Your task to perform on an android device: Add dell xps to the cart on walmart.com Image 0: 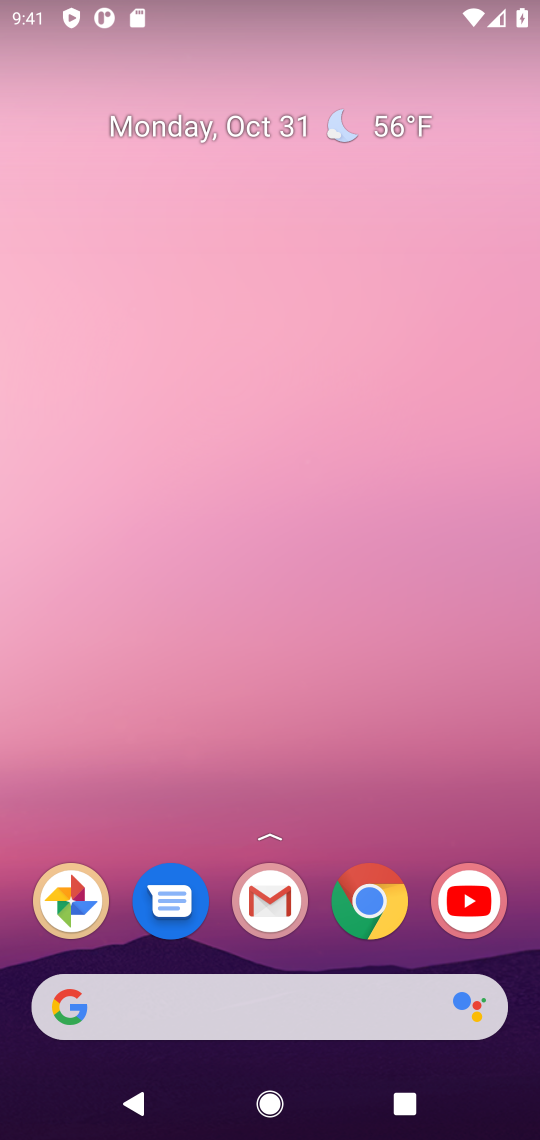
Step 0: drag from (204, 1035) to (215, 524)
Your task to perform on an android device: Add dell xps to the cart on walmart.com Image 1: 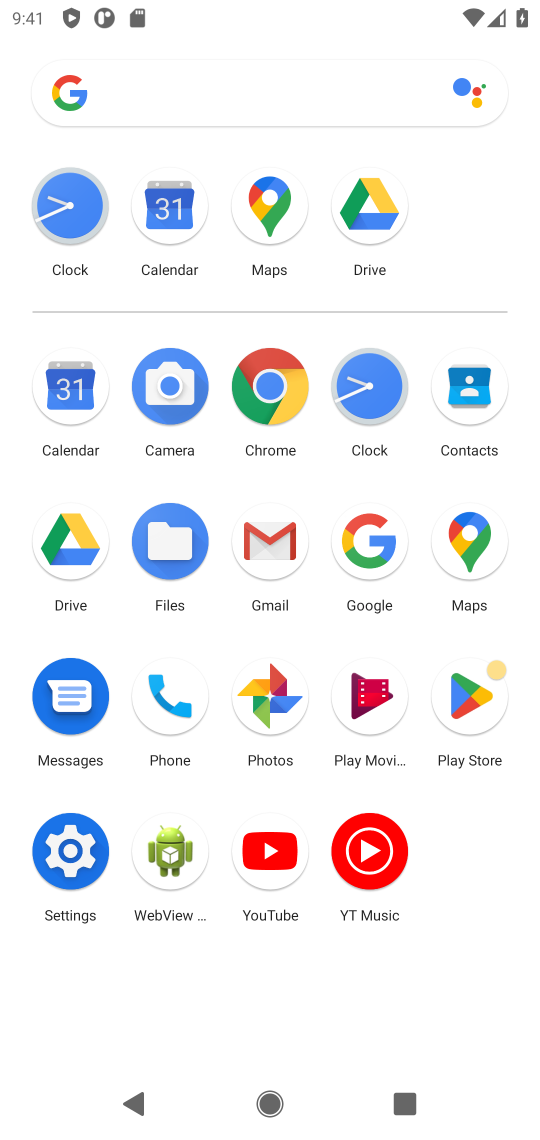
Step 1: click (362, 543)
Your task to perform on an android device: Add dell xps to the cart on walmart.com Image 2: 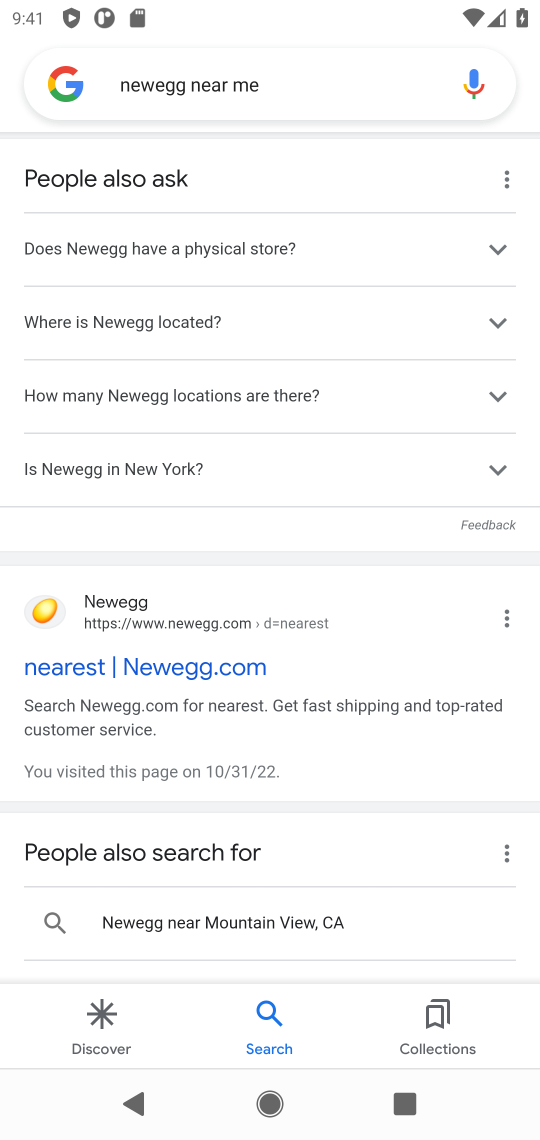
Step 2: click (260, 78)
Your task to perform on an android device: Add dell xps to the cart on walmart.com Image 3: 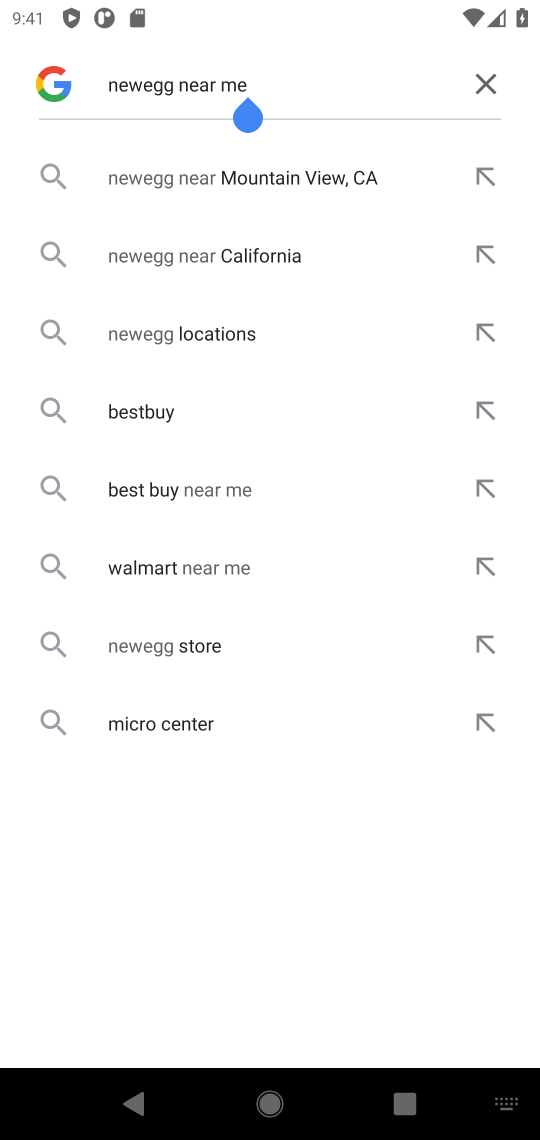
Step 3: click (469, 71)
Your task to perform on an android device: Add dell xps to the cart on walmart.com Image 4: 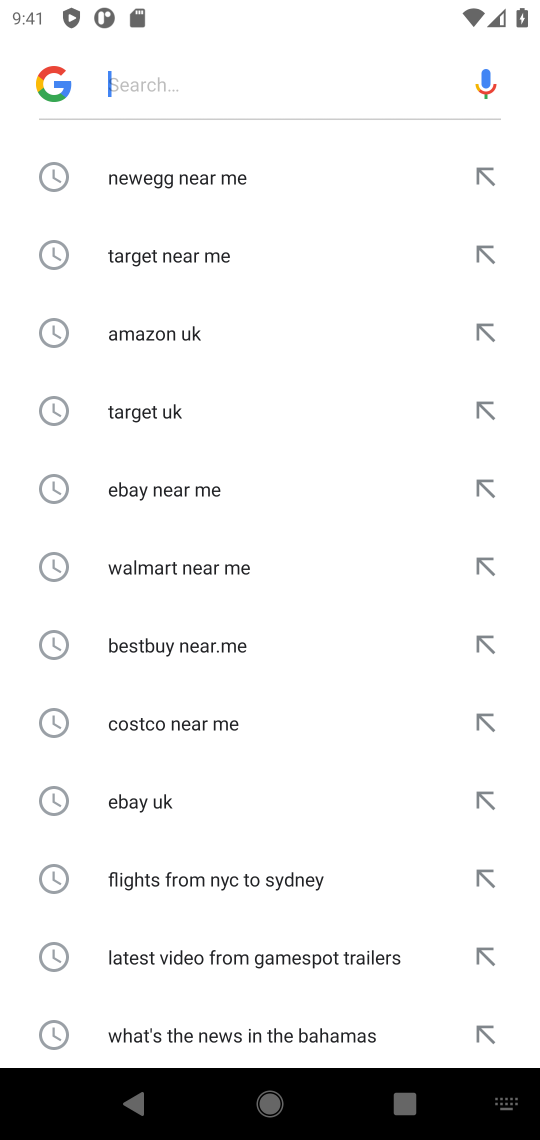
Step 4: click (143, 74)
Your task to perform on an android device: Add dell xps to the cart on walmart.com Image 5: 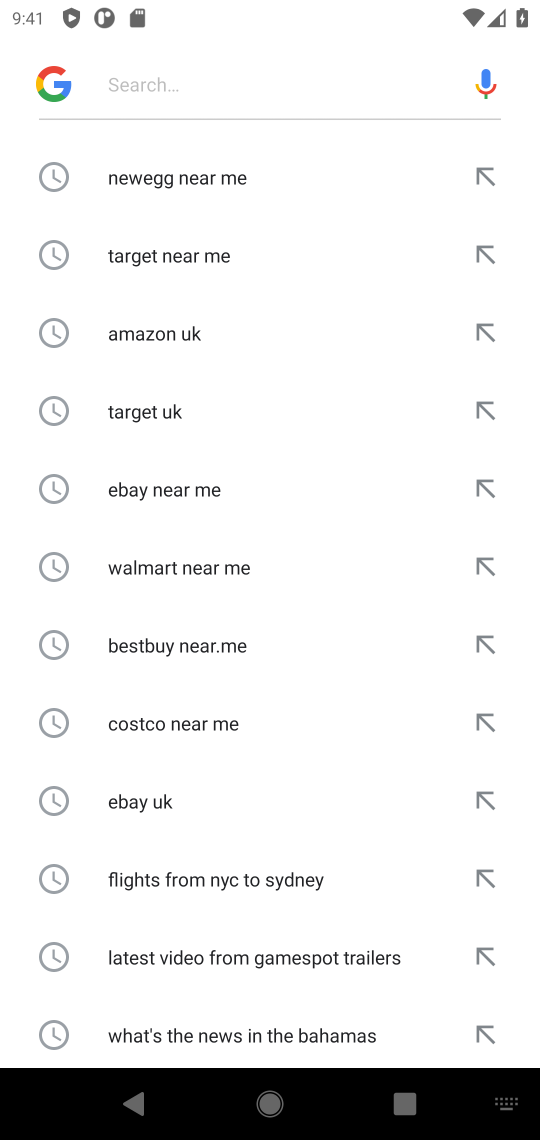
Step 5: type "walmart "
Your task to perform on an android device: Add dell xps to the cart on walmart.com Image 6: 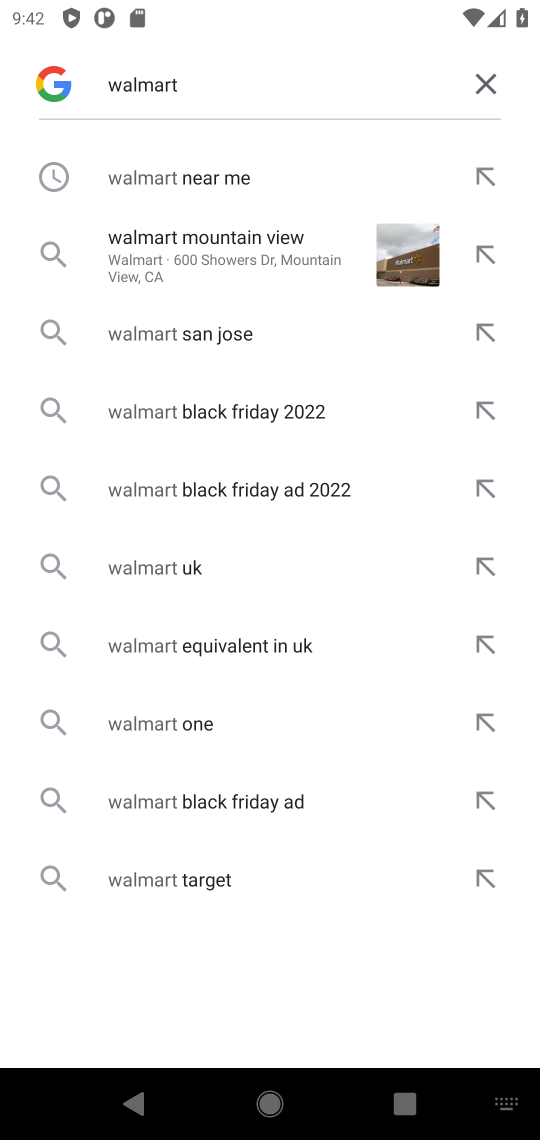
Step 6: click (163, 178)
Your task to perform on an android device: Add dell xps to the cart on walmart.com Image 7: 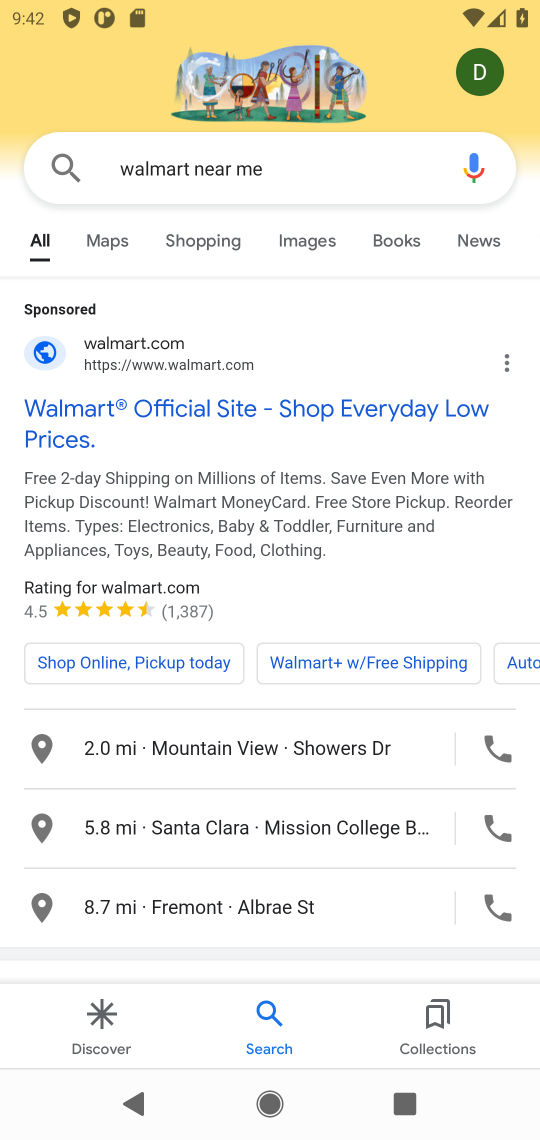
Step 7: click (81, 404)
Your task to perform on an android device: Add dell xps to the cart on walmart.com Image 8: 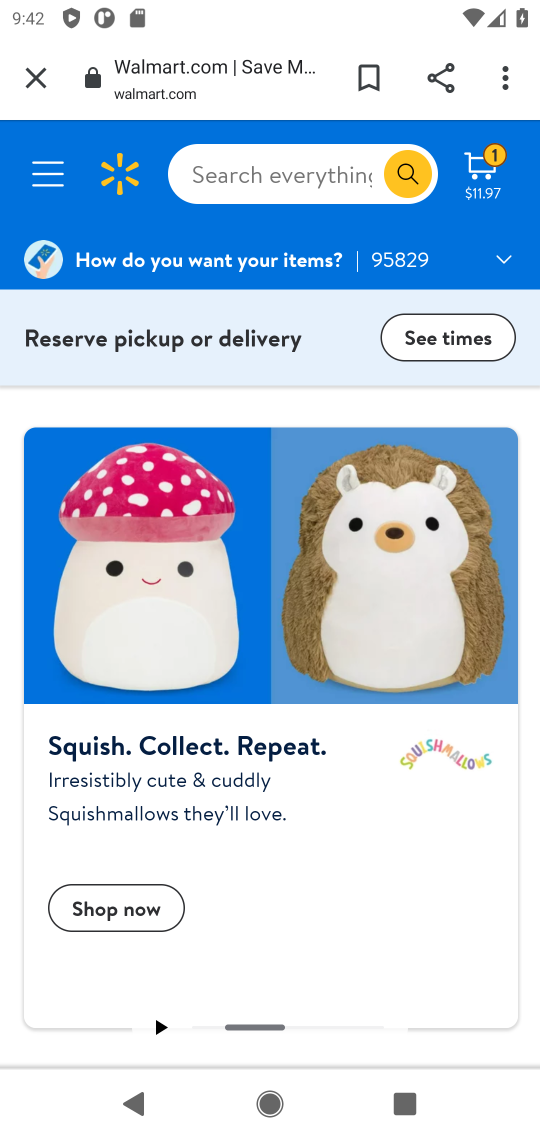
Step 8: click (323, 164)
Your task to perform on an android device: Add dell xps to the cart on walmart.com Image 9: 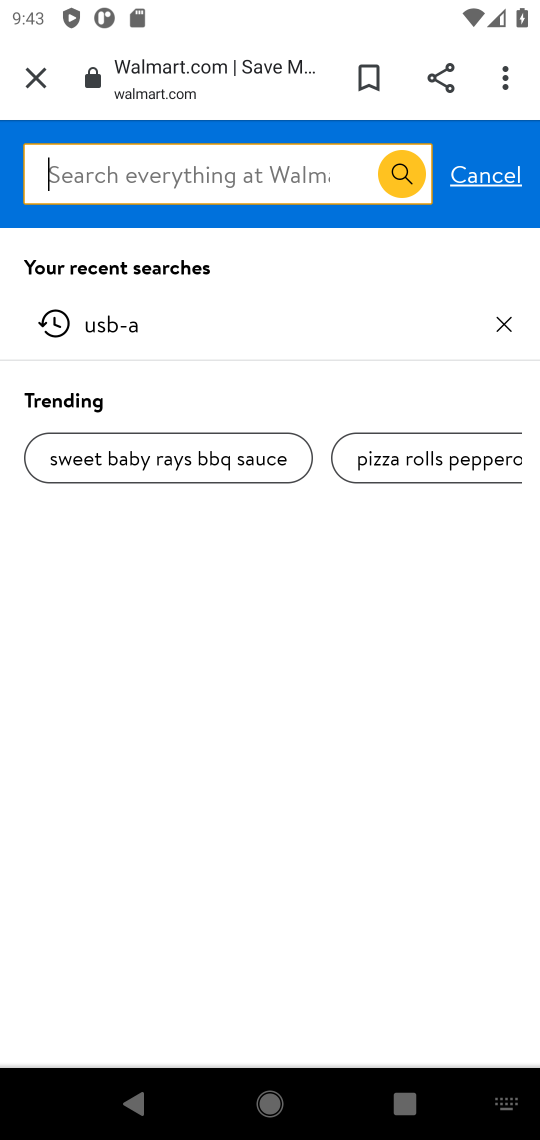
Step 9: click (292, 159)
Your task to perform on an android device: Add dell xps to the cart on walmart.com Image 10: 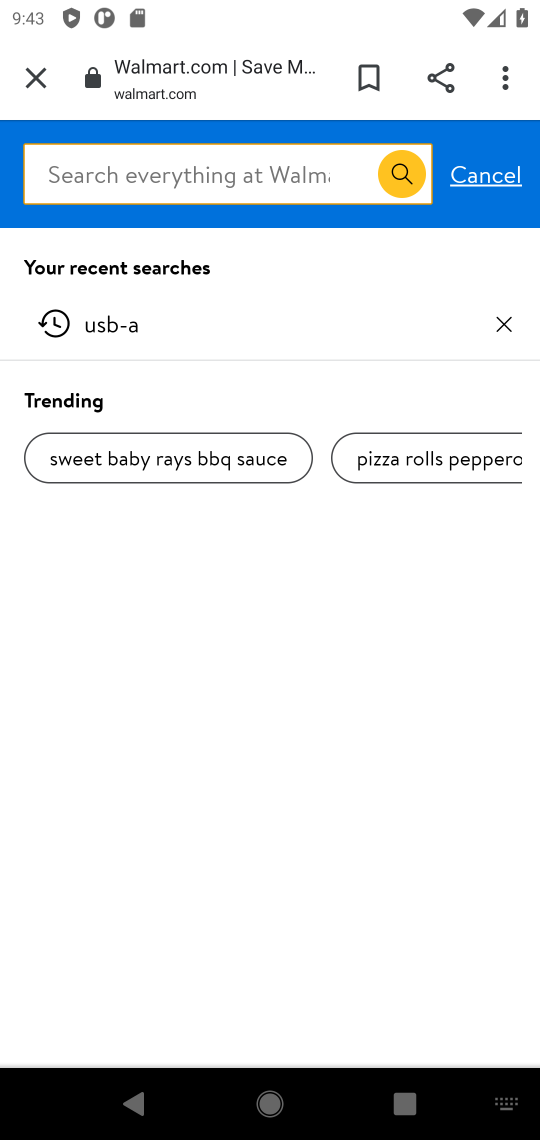
Step 10: type " dell xps  "
Your task to perform on an android device: Add dell xps to the cart on walmart.com Image 11: 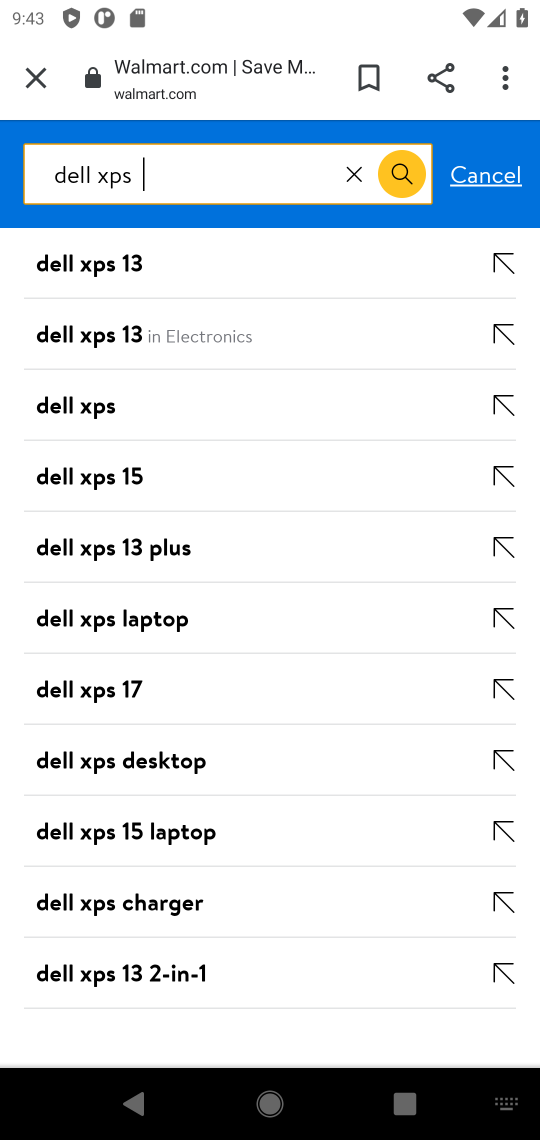
Step 11: click (99, 256)
Your task to perform on an android device: Add dell xps to the cart on walmart.com Image 12: 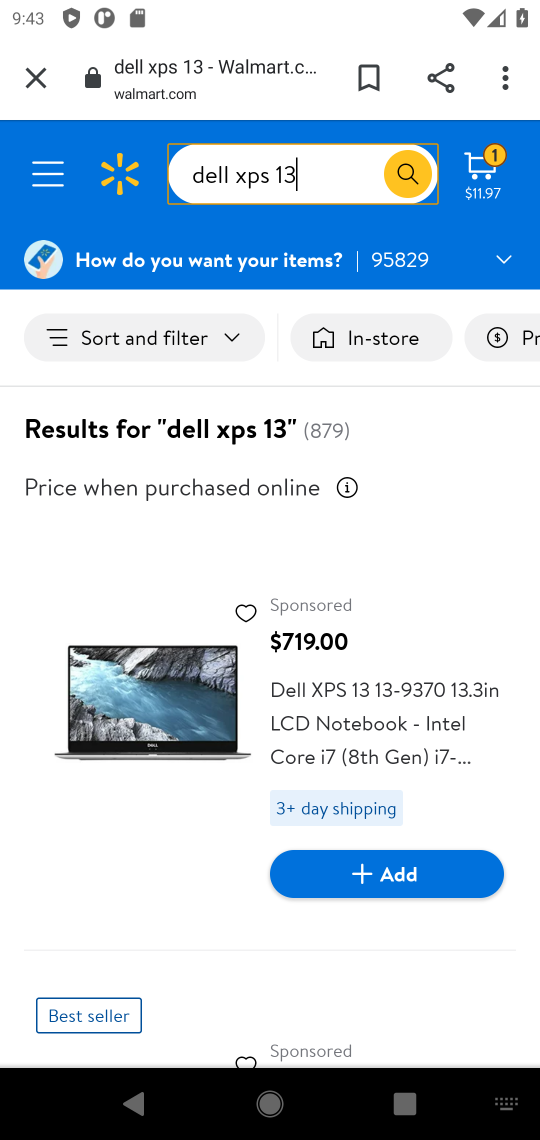
Step 12: click (372, 870)
Your task to perform on an android device: Add dell xps to the cart on walmart.com Image 13: 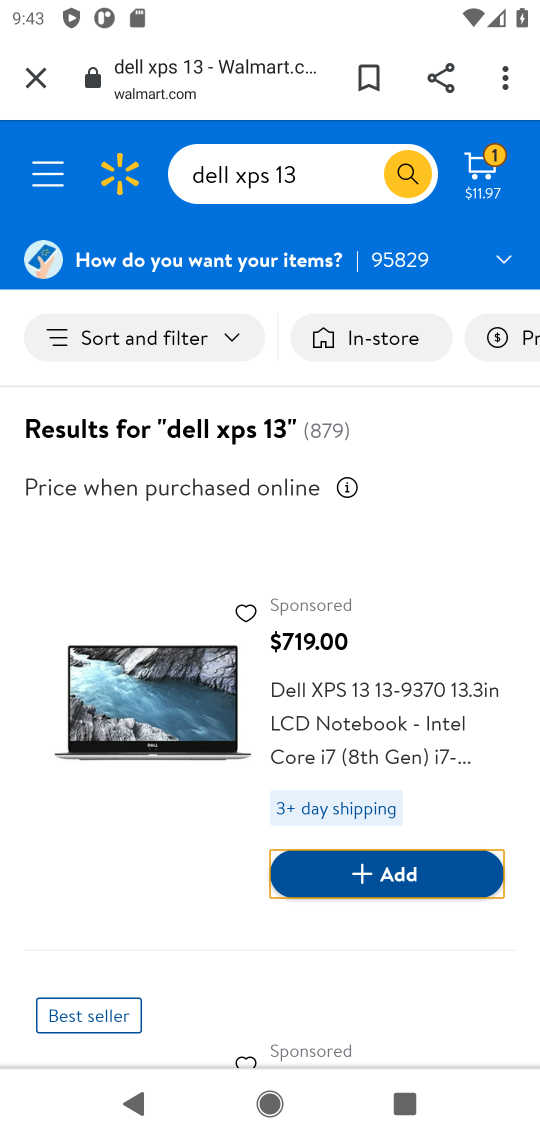
Step 13: click (328, 680)
Your task to perform on an android device: Add dell xps to the cart on walmart.com Image 14: 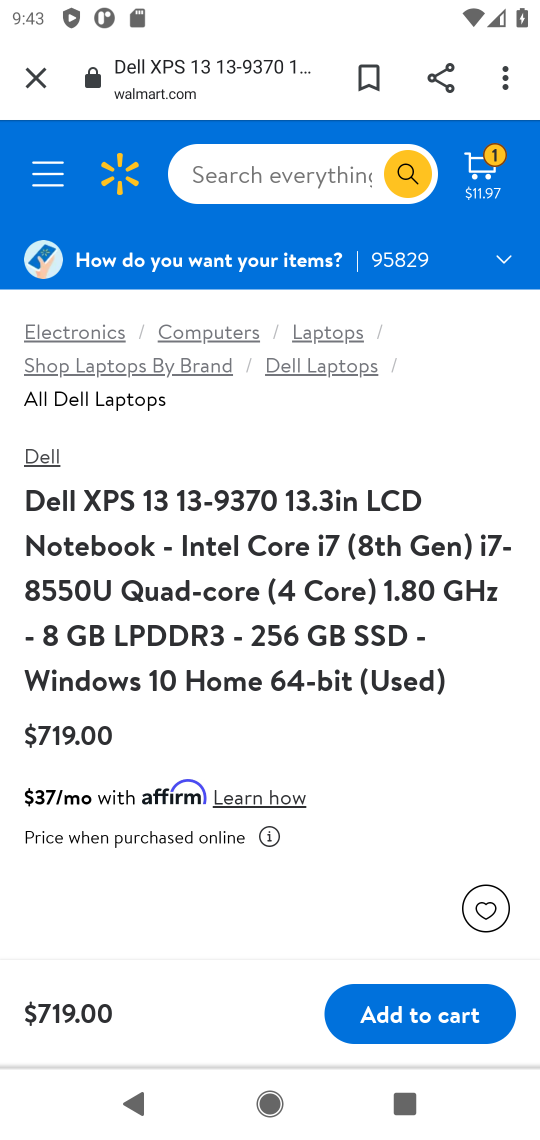
Step 14: click (441, 1037)
Your task to perform on an android device: Add dell xps to the cart on walmart.com Image 15: 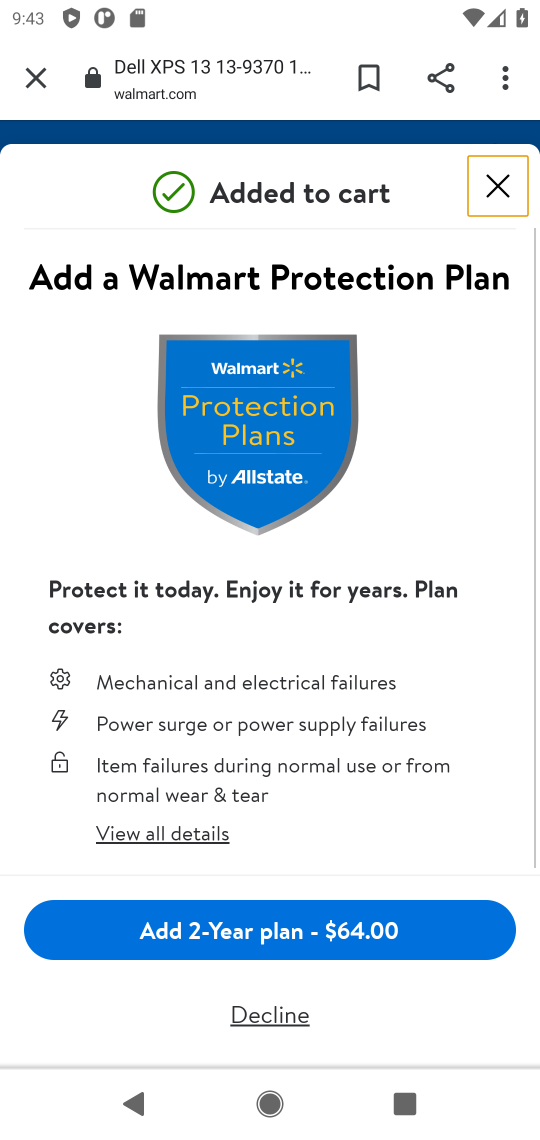
Step 15: task complete